Your task to perform on an android device: check the backup settings in the google photos Image 0: 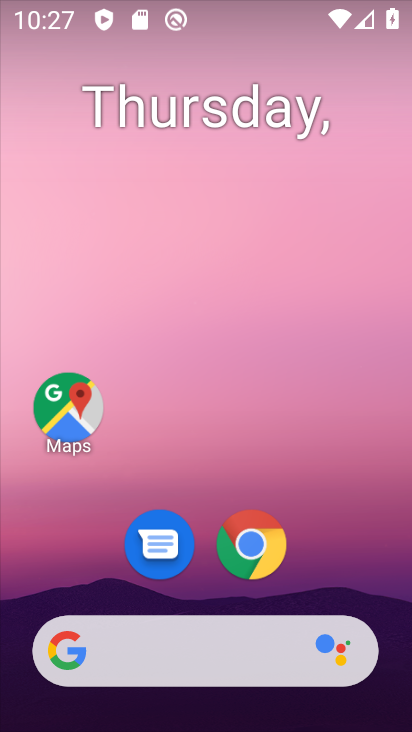
Step 0: drag from (333, 562) to (346, 99)
Your task to perform on an android device: check the backup settings in the google photos Image 1: 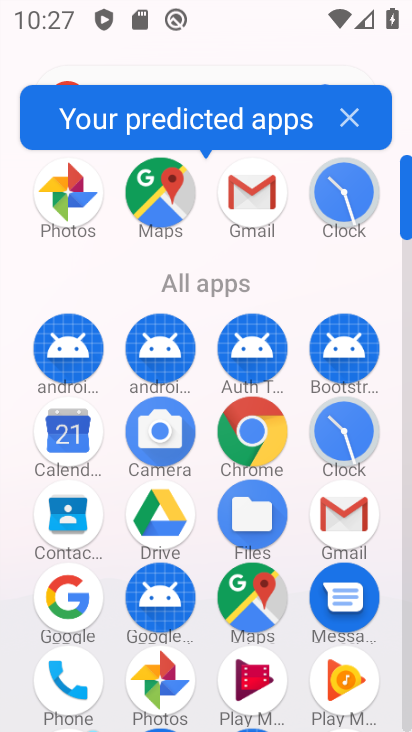
Step 1: drag from (289, 170) to (289, 27)
Your task to perform on an android device: check the backup settings in the google photos Image 2: 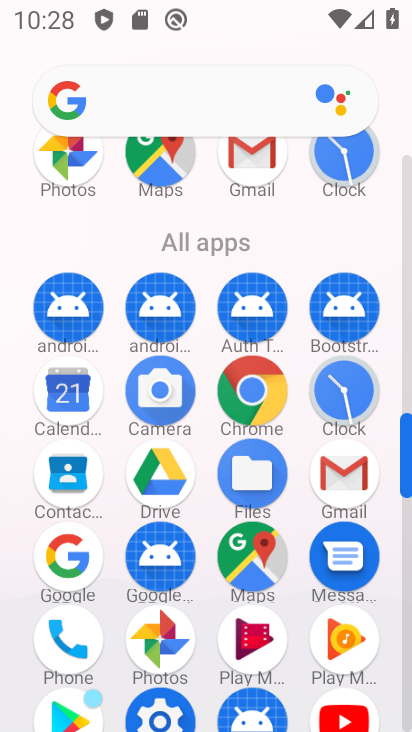
Step 2: click (165, 649)
Your task to perform on an android device: check the backup settings in the google photos Image 3: 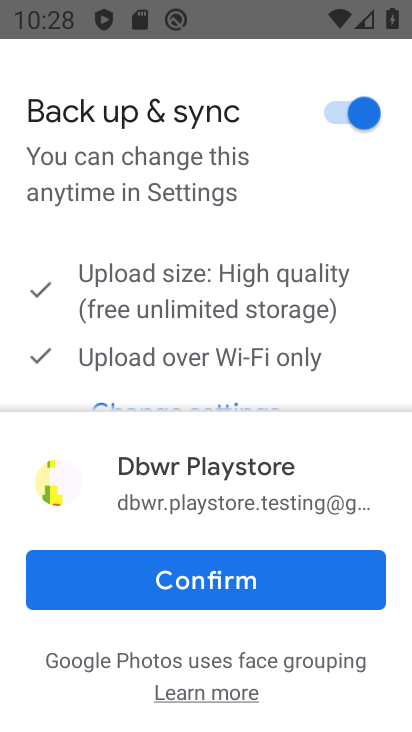
Step 3: click (242, 595)
Your task to perform on an android device: check the backup settings in the google photos Image 4: 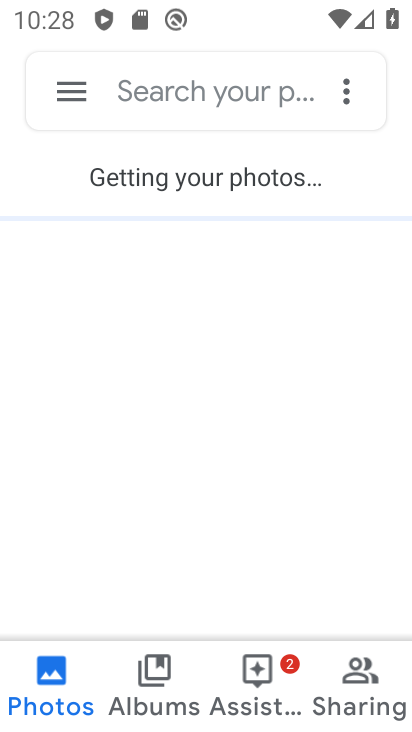
Step 4: click (66, 91)
Your task to perform on an android device: check the backup settings in the google photos Image 5: 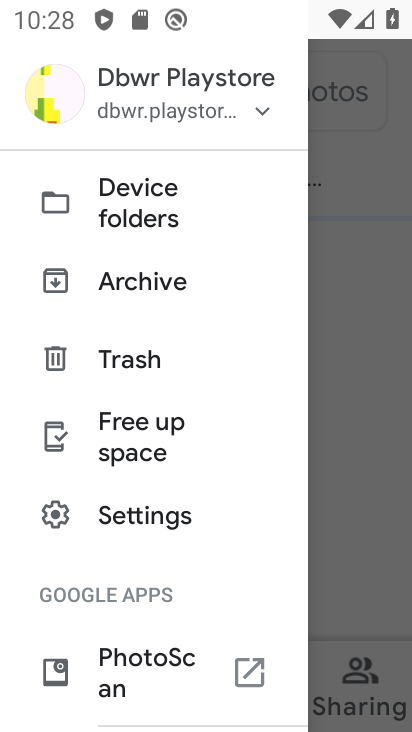
Step 5: click (142, 96)
Your task to perform on an android device: check the backup settings in the google photos Image 6: 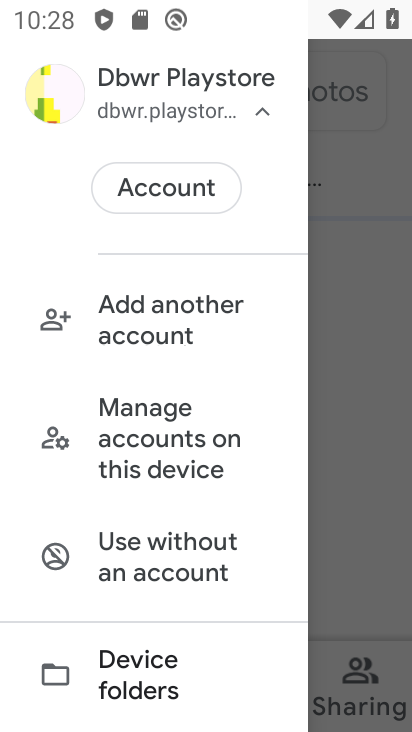
Step 6: drag from (238, 345) to (246, 260)
Your task to perform on an android device: check the backup settings in the google photos Image 7: 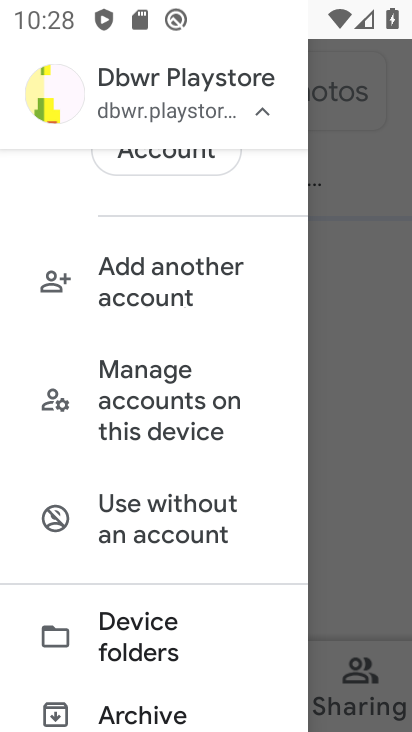
Step 7: drag from (252, 664) to (259, 241)
Your task to perform on an android device: check the backup settings in the google photos Image 8: 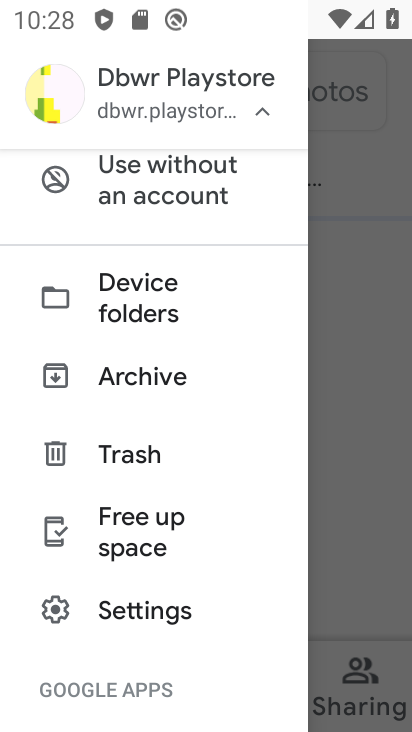
Step 8: click (128, 614)
Your task to perform on an android device: check the backup settings in the google photos Image 9: 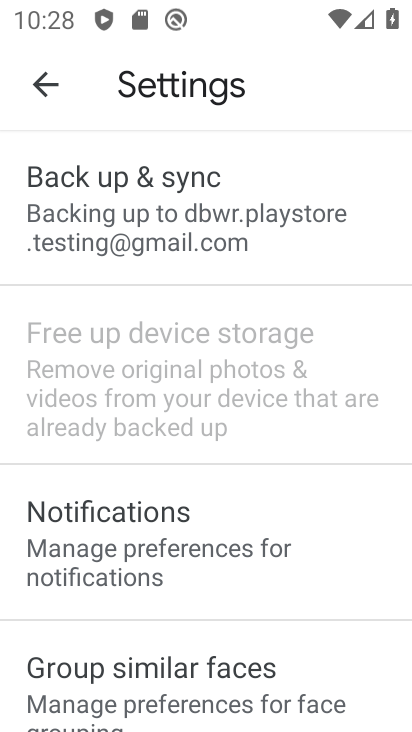
Step 9: drag from (302, 569) to (296, 389)
Your task to perform on an android device: check the backup settings in the google photos Image 10: 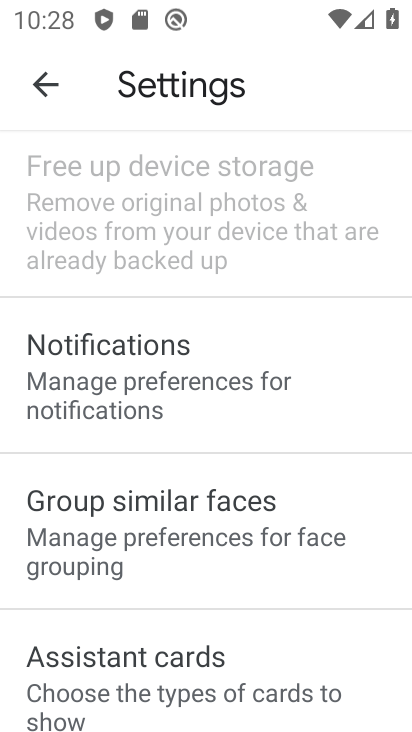
Step 10: drag from (224, 269) to (209, 685)
Your task to perform on an android device: check the backup settings in the google photos Image 11: 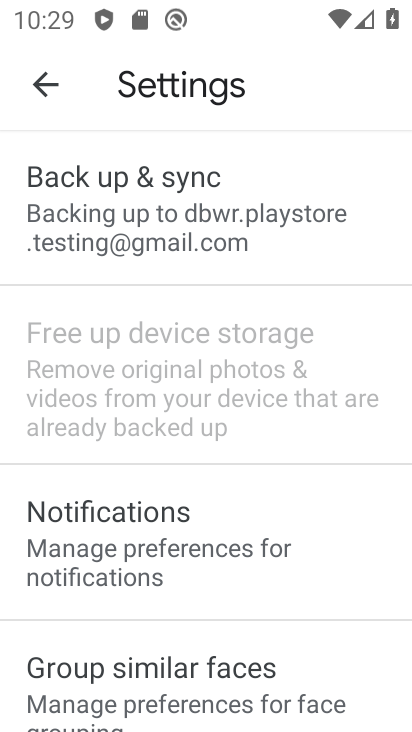
Step 11: click (181, 227)
Your task to perform on an android device: check the backup settings in the google photos Image 12: 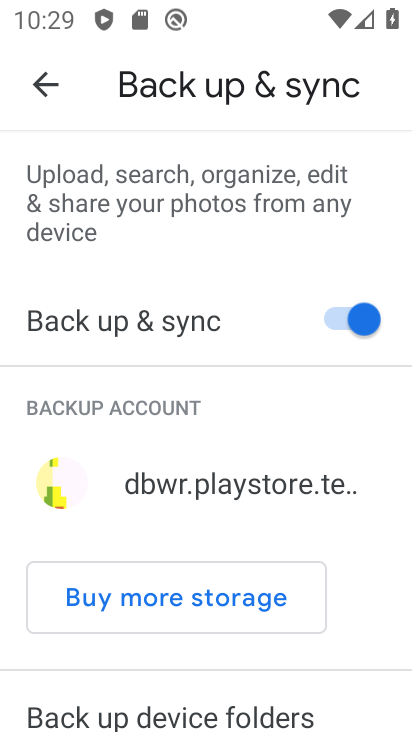
Step 12: task complete